Your task to perform on an android device: Open the web browser Image 0: 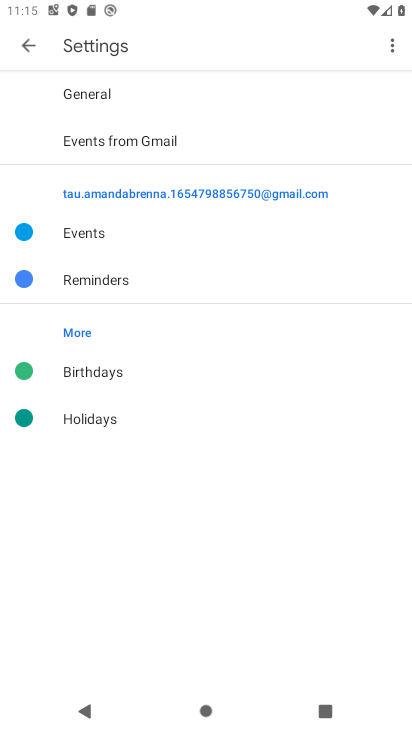
Step 0: press home button
Your task to perform on an android device: Open the web browser Image 1: 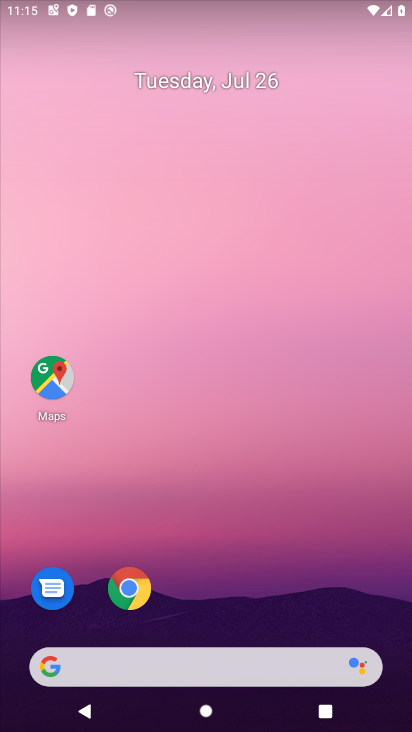
Step 1: click (137, 585)
Your task to perform on an android device: Open the web browser Image 2: 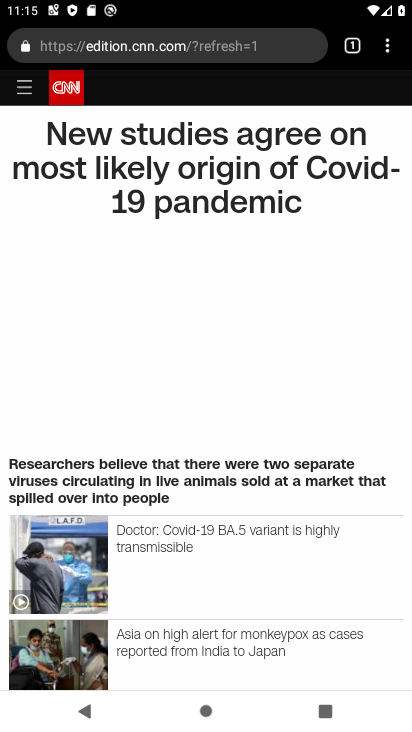
Step 2: task complete